Your task to perform on an android device: stop showing notifications on the lock screen Image 0: 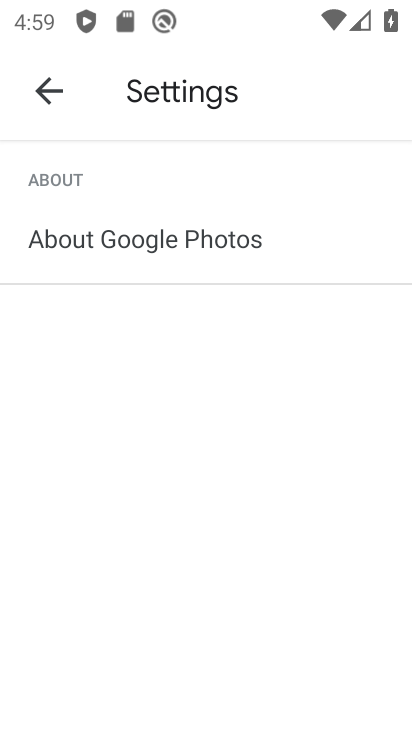
Step 0: click (45, 80)
Your task to perform on an android device: stop showing notifications on the lock screen Image 1: 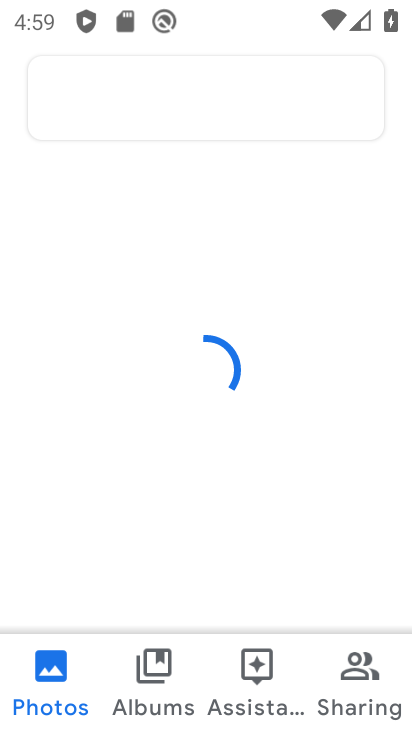
Step 1: press home button
Your task to perform on an android device: stop showing notifications on the lock screen Image 2: 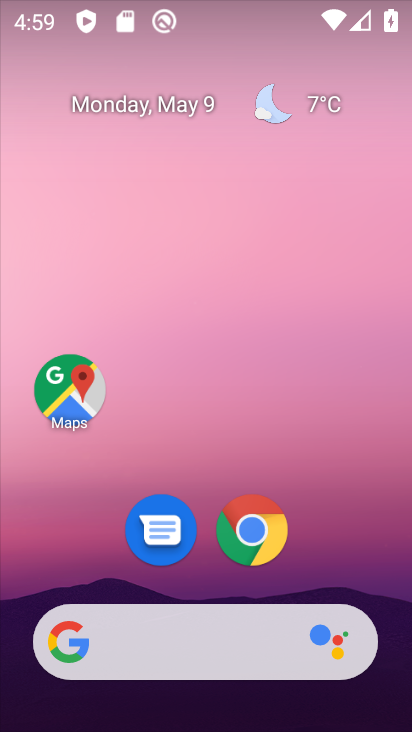
Step 2: drag from (208, 466) to (208, 79)
Your task to perform on an android device: stop showing notifications on the lock screen Image 3: 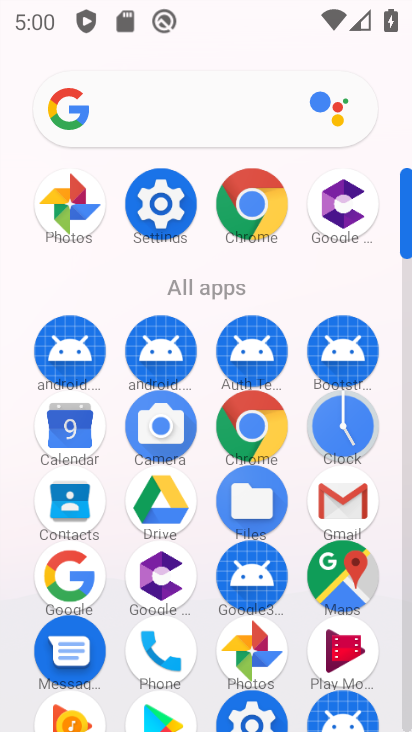
Step 3: click (152, 207)
Your task to perform on an android device: stop showing notifications on the lock screen Image 4: 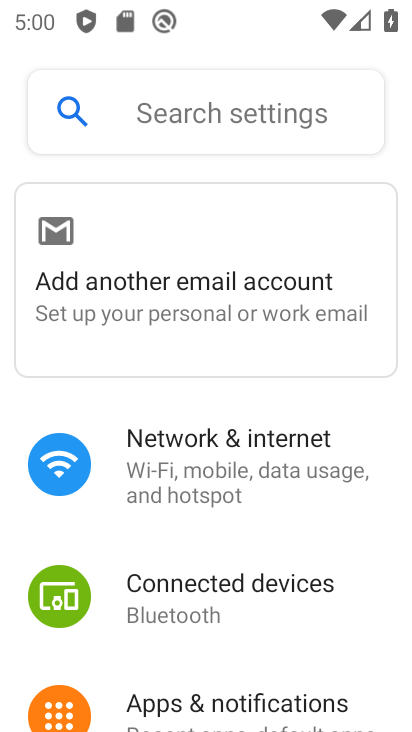
Step 4: drag from (241, 663) to (265, 265)
Your task to perform on an android device: stop showing notifications on the lock screen Image 5: 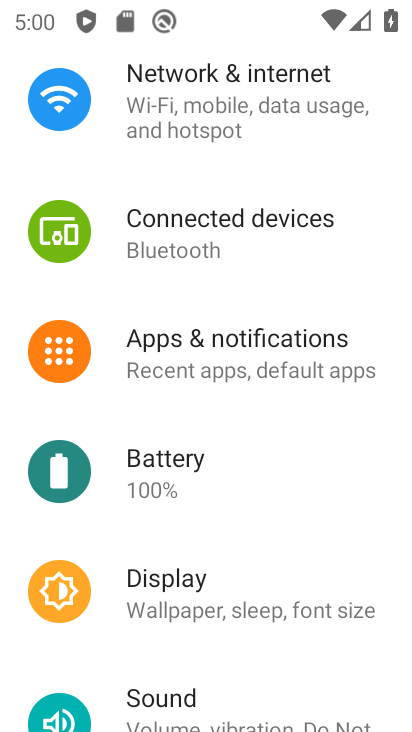
Step 5: drag from (255, 681) to (253, 354)
Your task to perform on an android device: stop showing notifications on the lock screen Image 6: 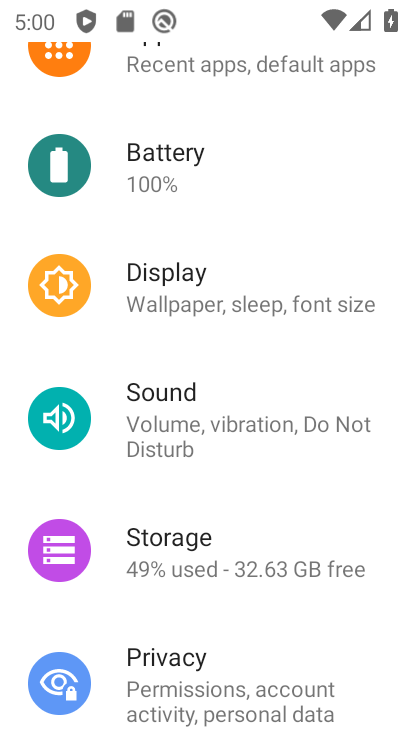
Step 6: drag from (258, 211) to (250, 474)
Your task to perform on an android device: stop showing notifications on the lock screen Image 7: 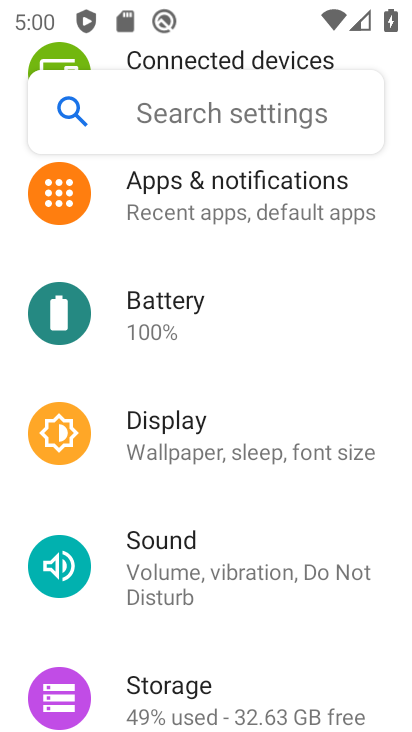
Step 7: click (211, 221)
Your task to perform on an android device: stop showing notifications on the lock screen Image 8: 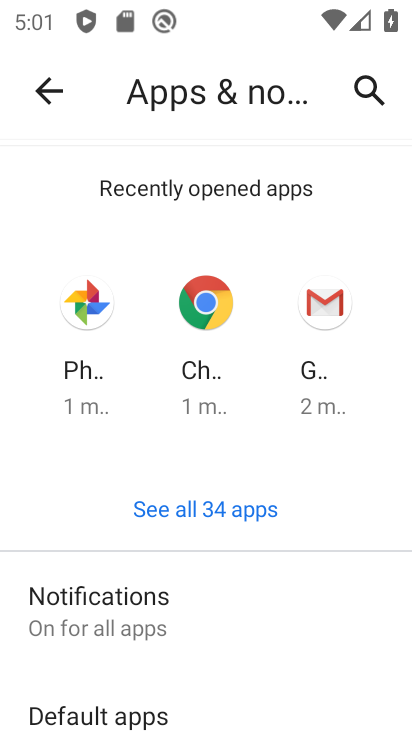
Step 8: drag from (241, 632) to (227, 396)
Your task to perform on an android device: stop showing notifications on the lock screen Image 9: 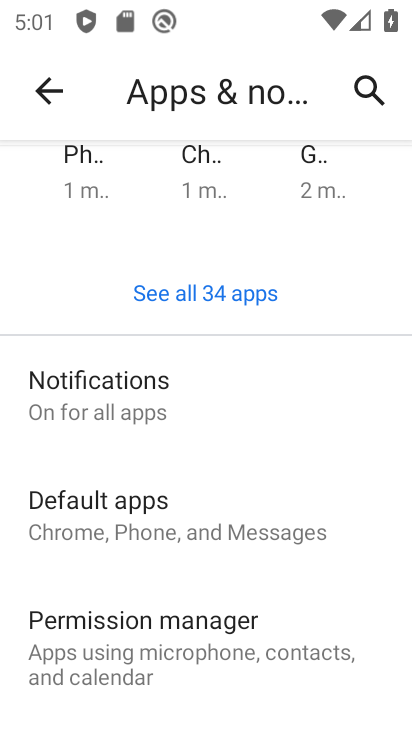
Step 9: drag from (299, 603) to (296, 341)
Your task to perform on an android device: stop showing notifications on the lock screen Image 10: 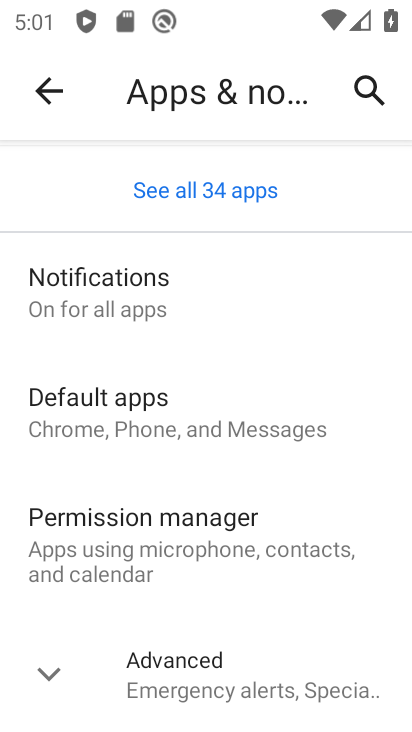
Step 10: click (148, 293)
Your task to perform on an android device: stop showing notifications on the lock screen Image 11: 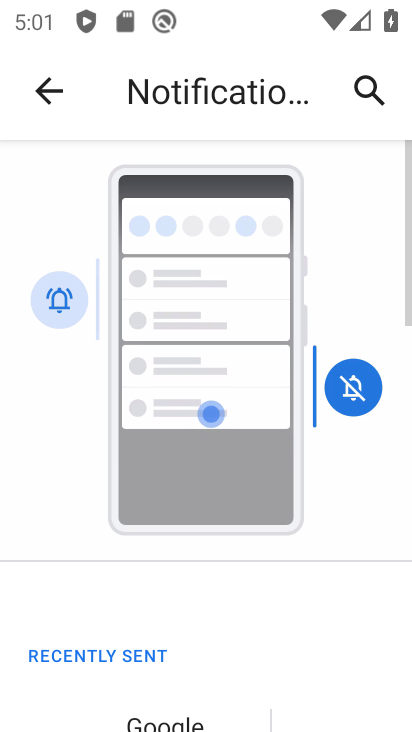
Step 11: drag from (291, 710) to (271, 277)
Your task to perform on an android device: stop showing notifications on the lock screen Image 12: 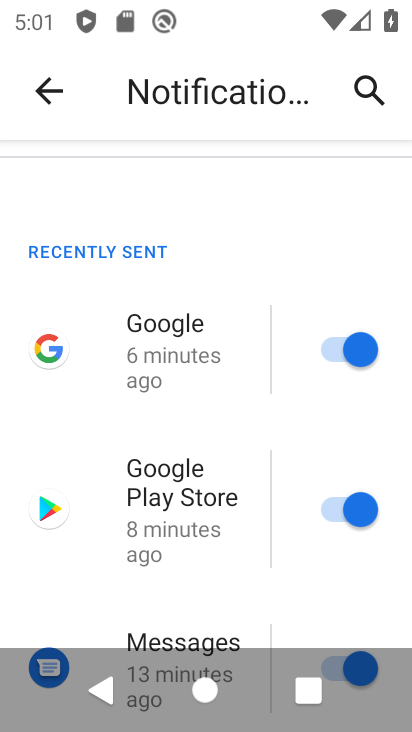
Step 12: drag from (238, 574) to (230, 158)
Your task to perform on an android device: stop showing notifications on the lock screen Image 13: 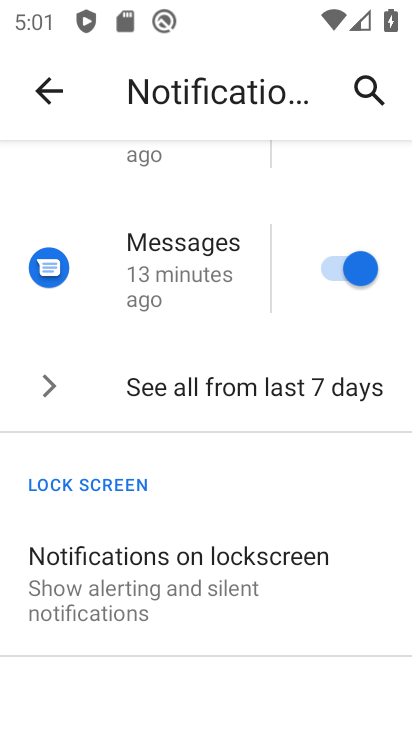
Step 13: click (218, 595)
Your task to perform on an android device: stop showing notifications on the lock screen Image 14: 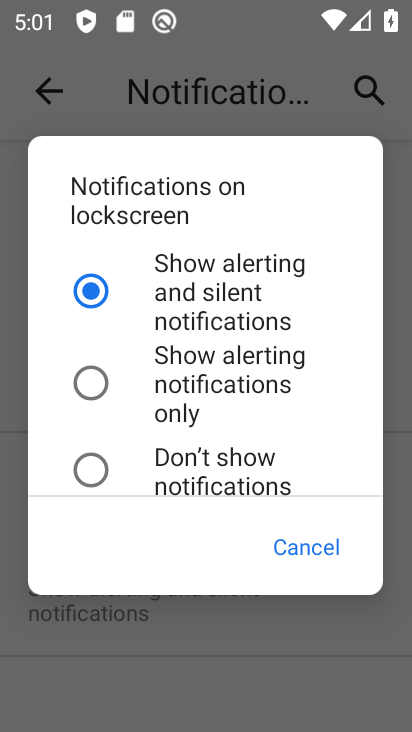
Step 14: click (87, 467)
Your task to perform on an android device: stop showing notifications on the lock screen Image 15: 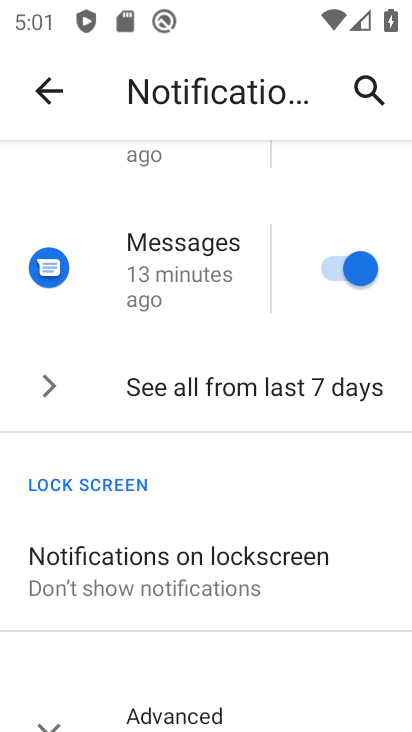
Step 15: task complete